Your task to perform on an android device: Show me productivity apps on the Play Store Image 0: 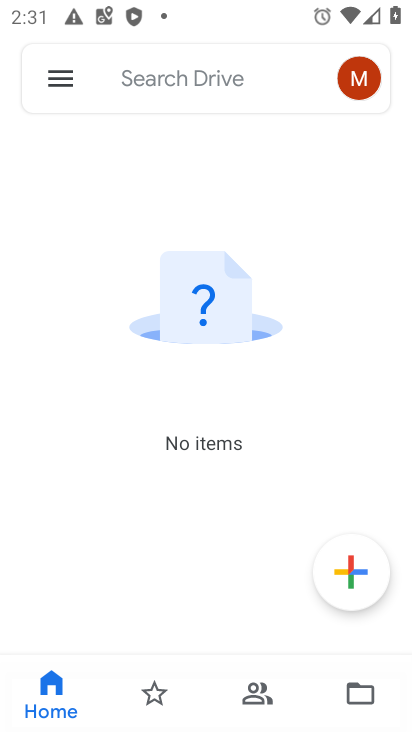
Step 0: press home button
Your task to perform on an android device: Show me productivity apps on the Play Store Image 1: 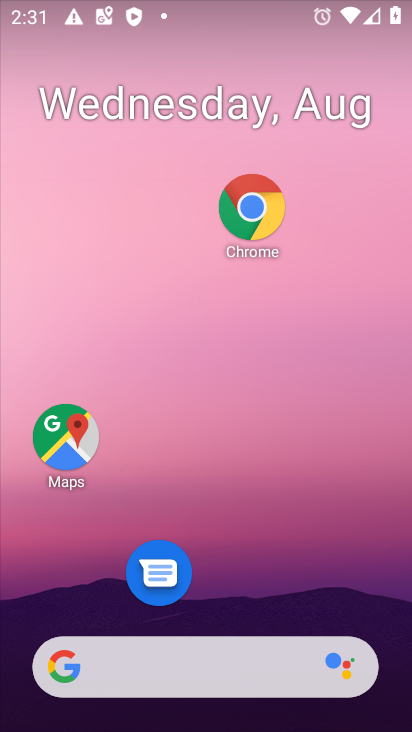
Step 1: drag from (290, 590) to (336, 60)
Your task to perform on an android device: Show me productivity apps on the Play Store Image 2: 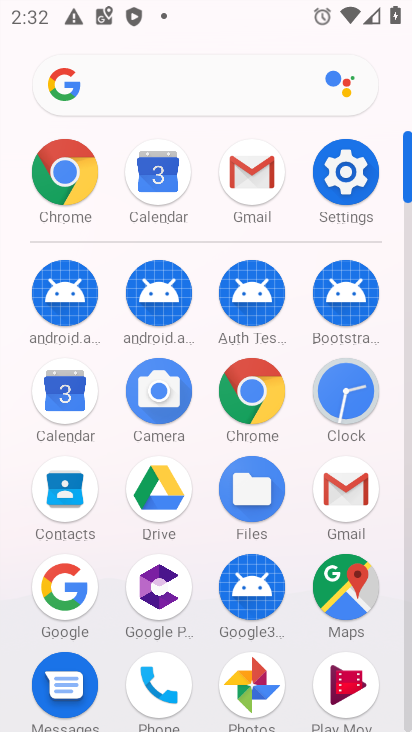
Step 2: drag from (268, 486) to (398, 175)
Your task to perform on an android device: Show me productivity apps on the Play Store Image 3: 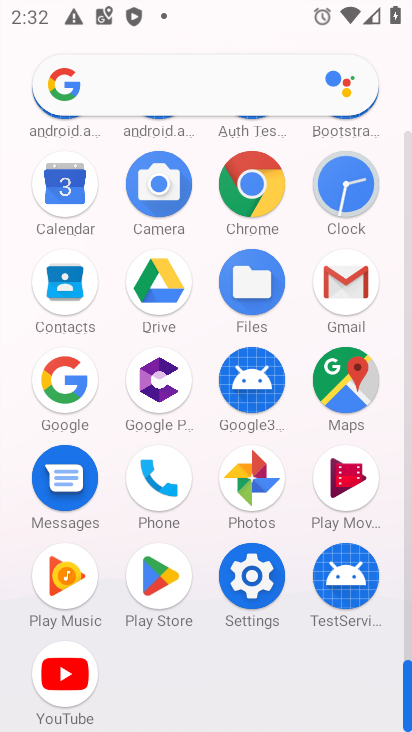
Step 3: click (163, 586)
Your task to perform on an android device: Show me productivity apps on the Play Store Image 4: 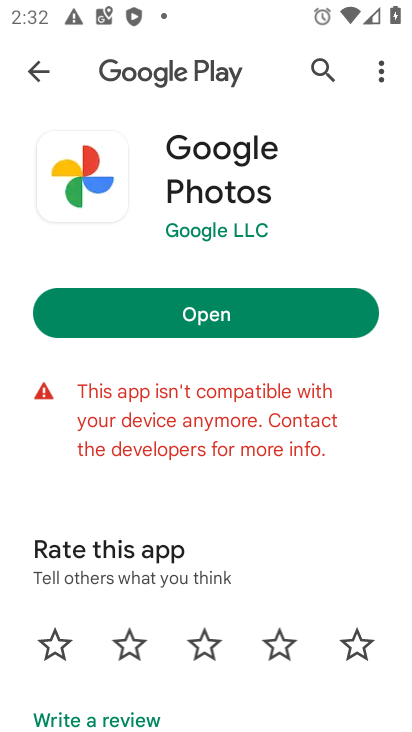
Step 4: click (36, 68)
Your task to perform on an android device: Show me productivity apps on the Play Store Image 5: 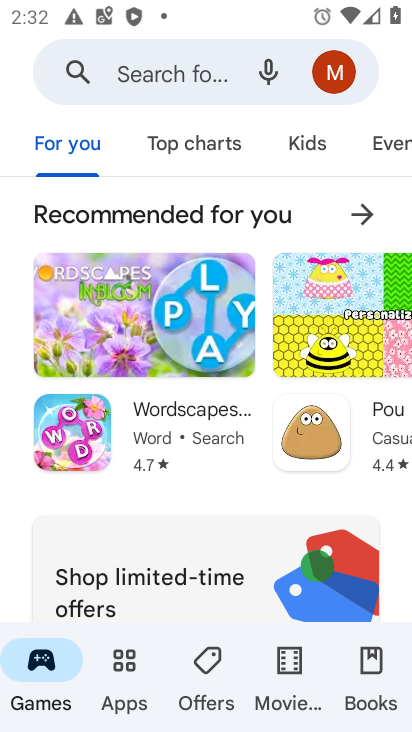
Step 5: click (168, 79)
Your task to perform on an android device: Show me productivity apps on the Play Store Image 6: 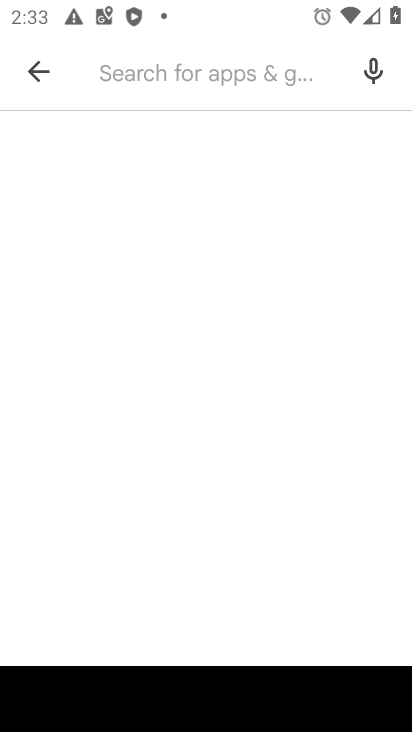
Step 6: type "productivity aaps"
Your task to perform on an android device: Show me productivity apps on the Play Store Image 7: 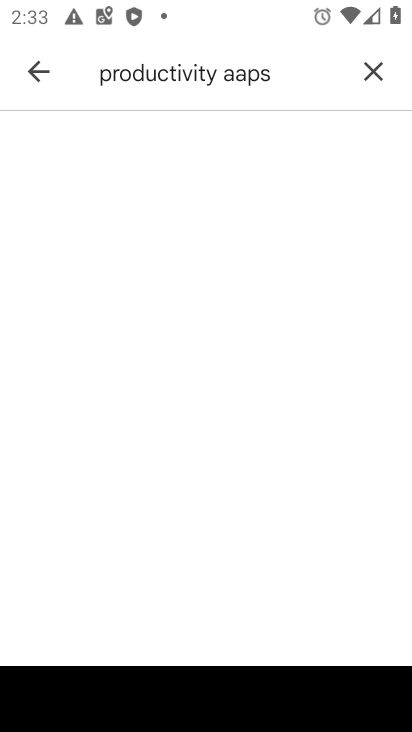
Step 7: task complete